Your task to perform on an android device: Search for duracell triple a on bestbuy, select the first entry, and add it to the cart. Image 0: 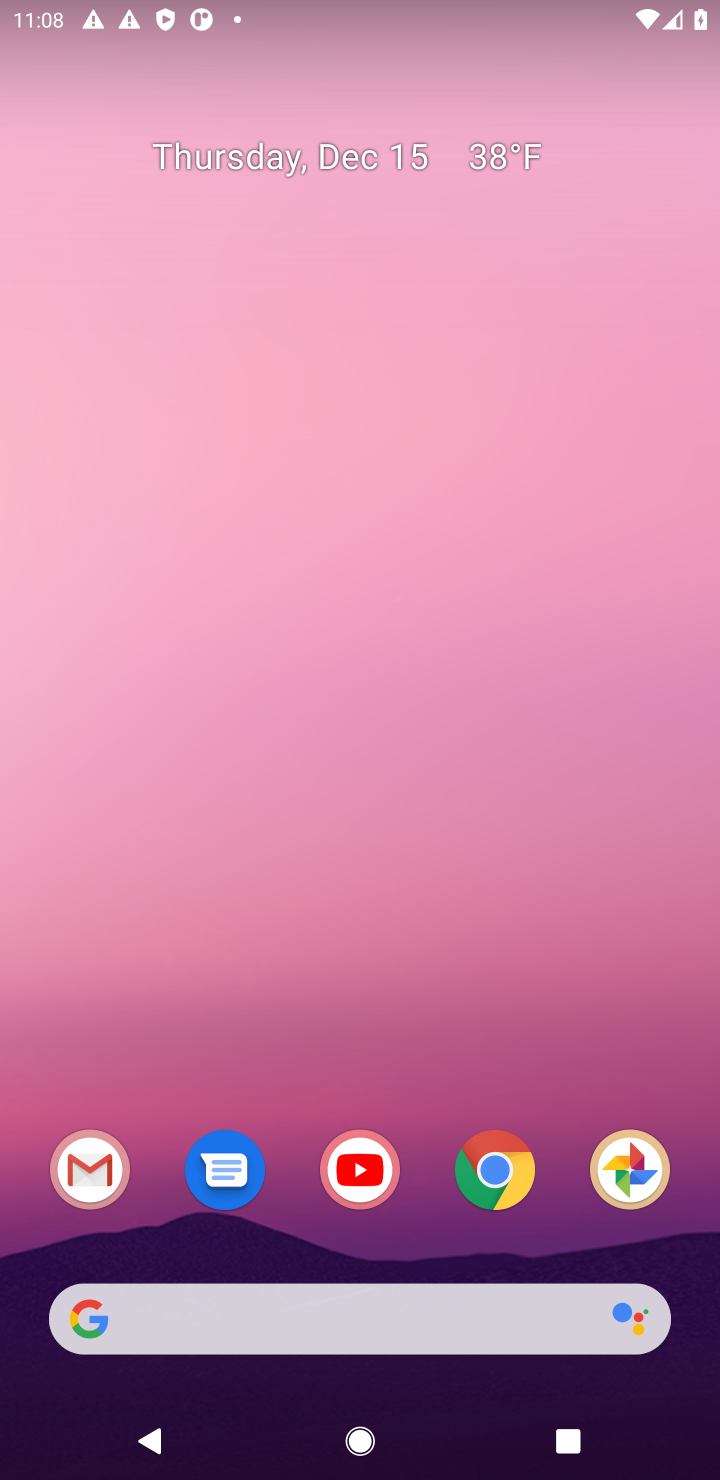
Step 0: click (501, 1177)
Your task to perform on an android device: Search for duracell triple a on bestbuy, select the first entry, and add it to the cart. Image 1: 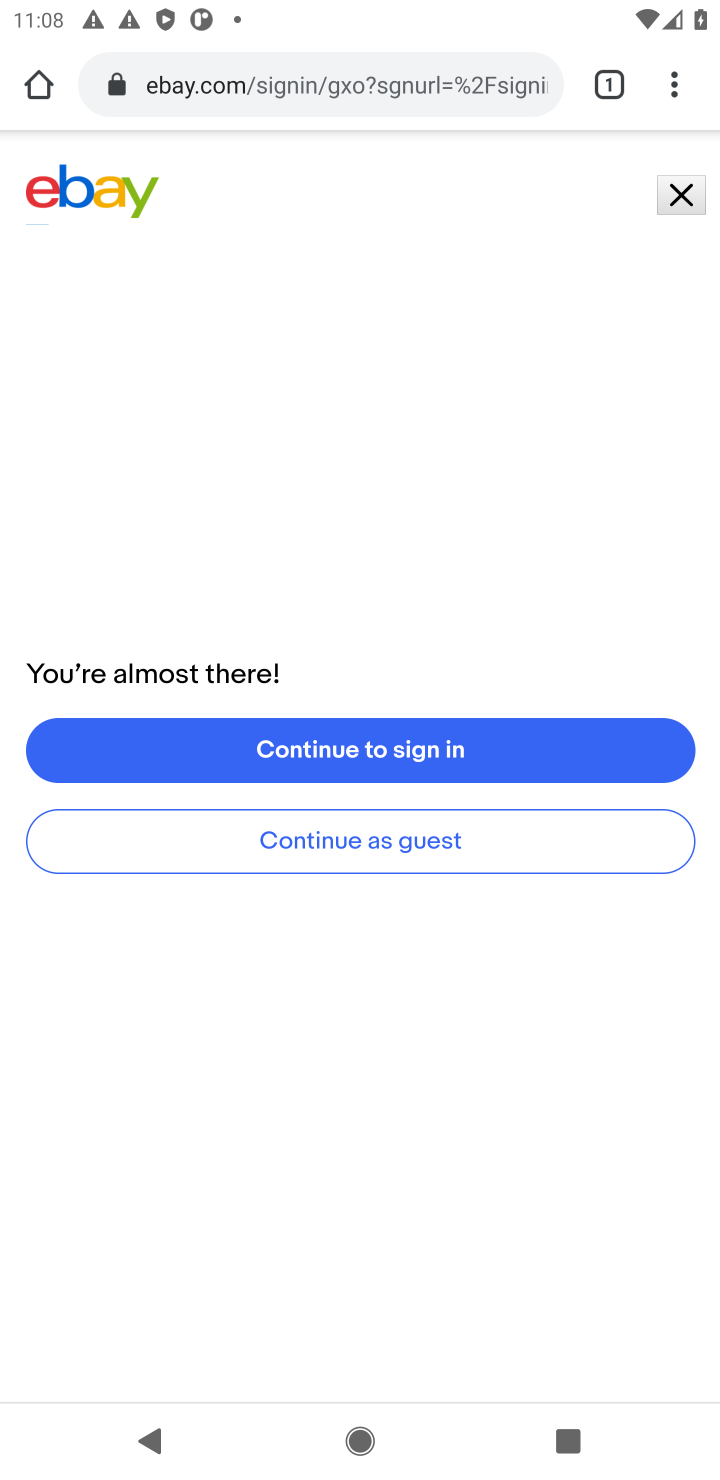
Step 1: click (257, 89)
Your task to perform on an android device: Search for duracell triple a on bestbuy, select the first entry, and add it to the cart. Image 2: 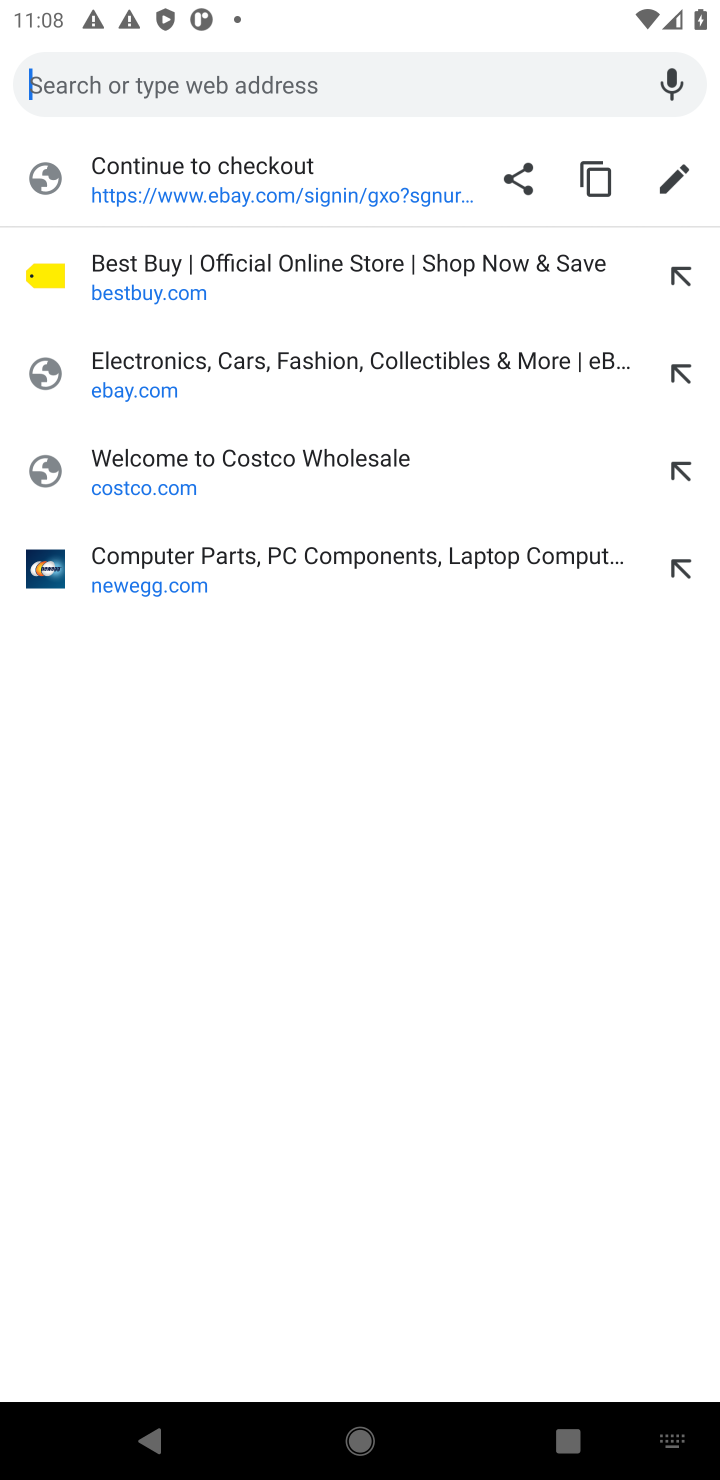
Step 2: click (125, 294)
Your task to perform on an android device: Search for duracell triple a on bestbuy, select the first entry, and add it to the cart. Image 3: 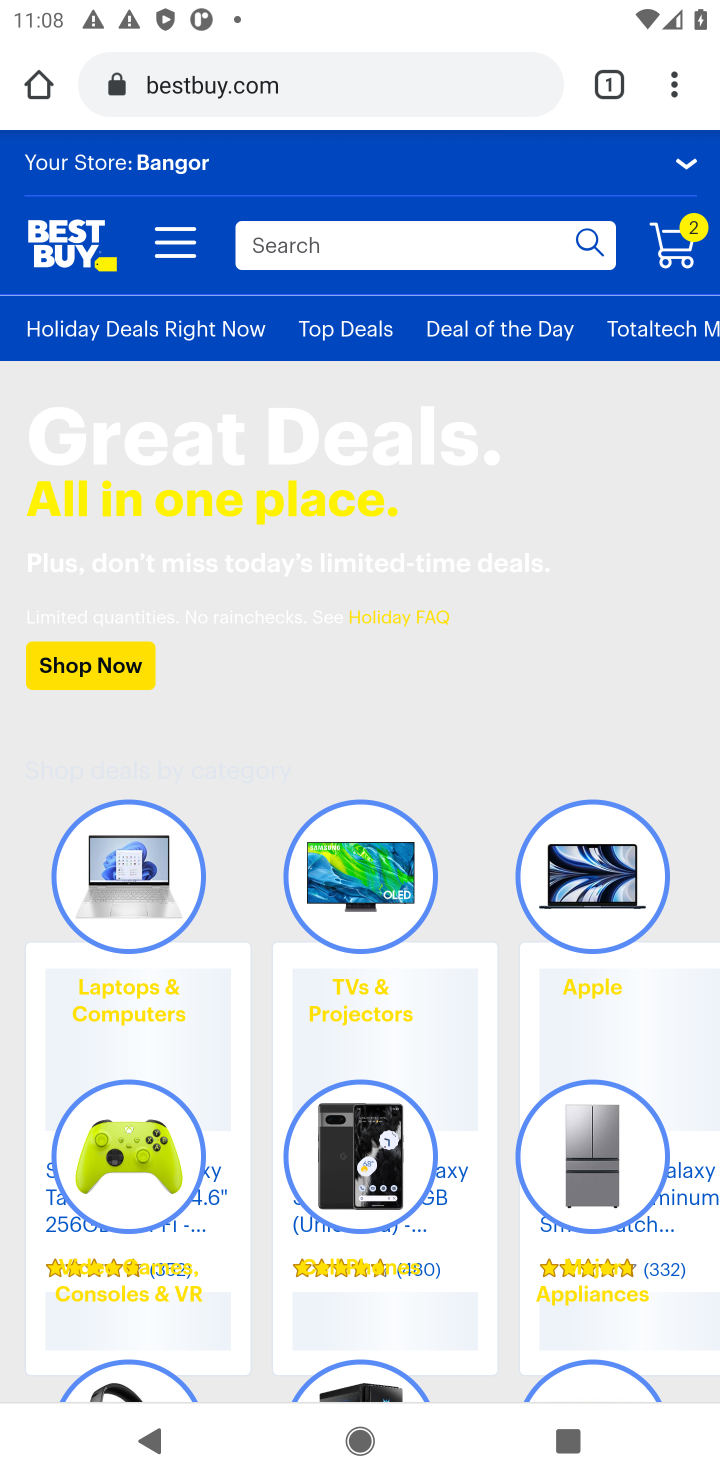
Step 3: click (331, 260)
Your task to perform on an android device: Search for duracell triple a on bestbuy, select the first entry, and add it to the cart. Image 4: 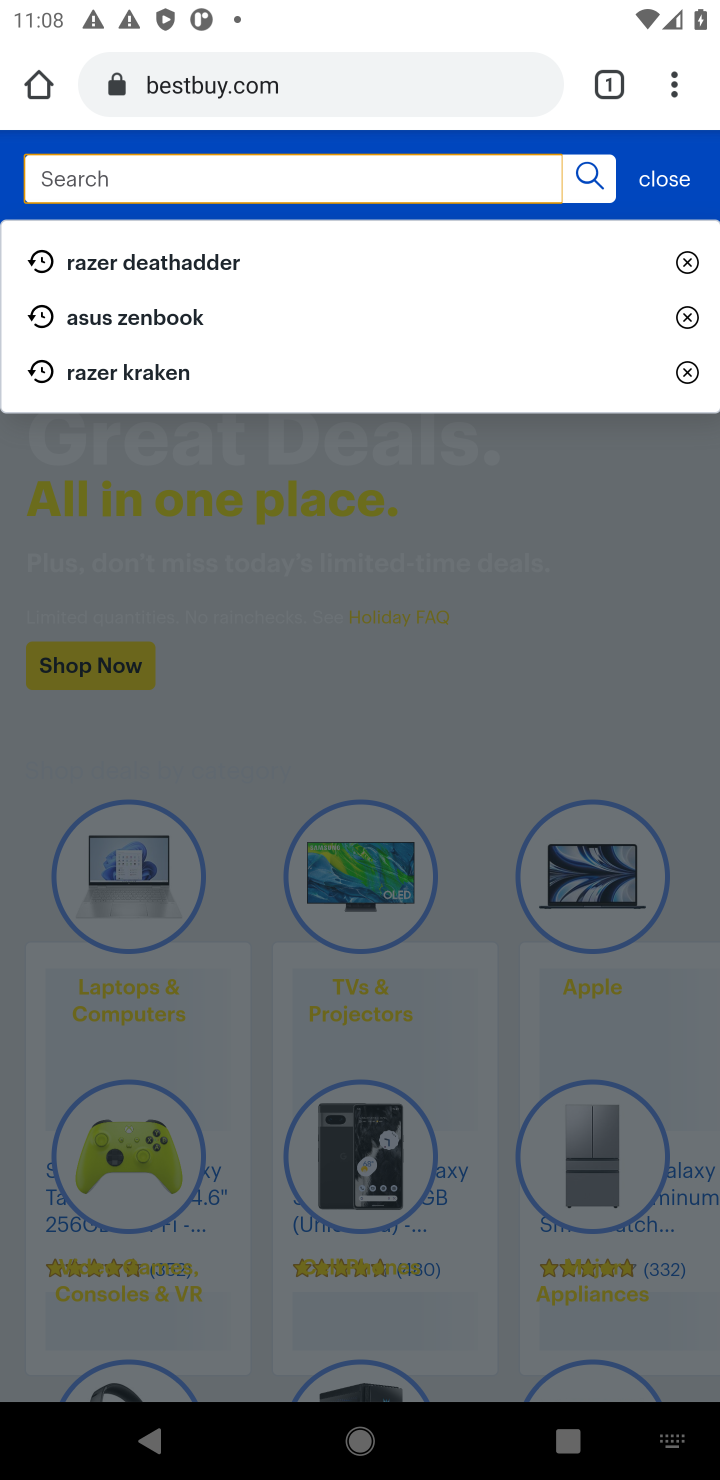
Step 4: type "duracell triple a"
Your task to perform on an android device: Search for duracell triple a on bestbuy, select the first entry, and add it to the cart. Image 5: 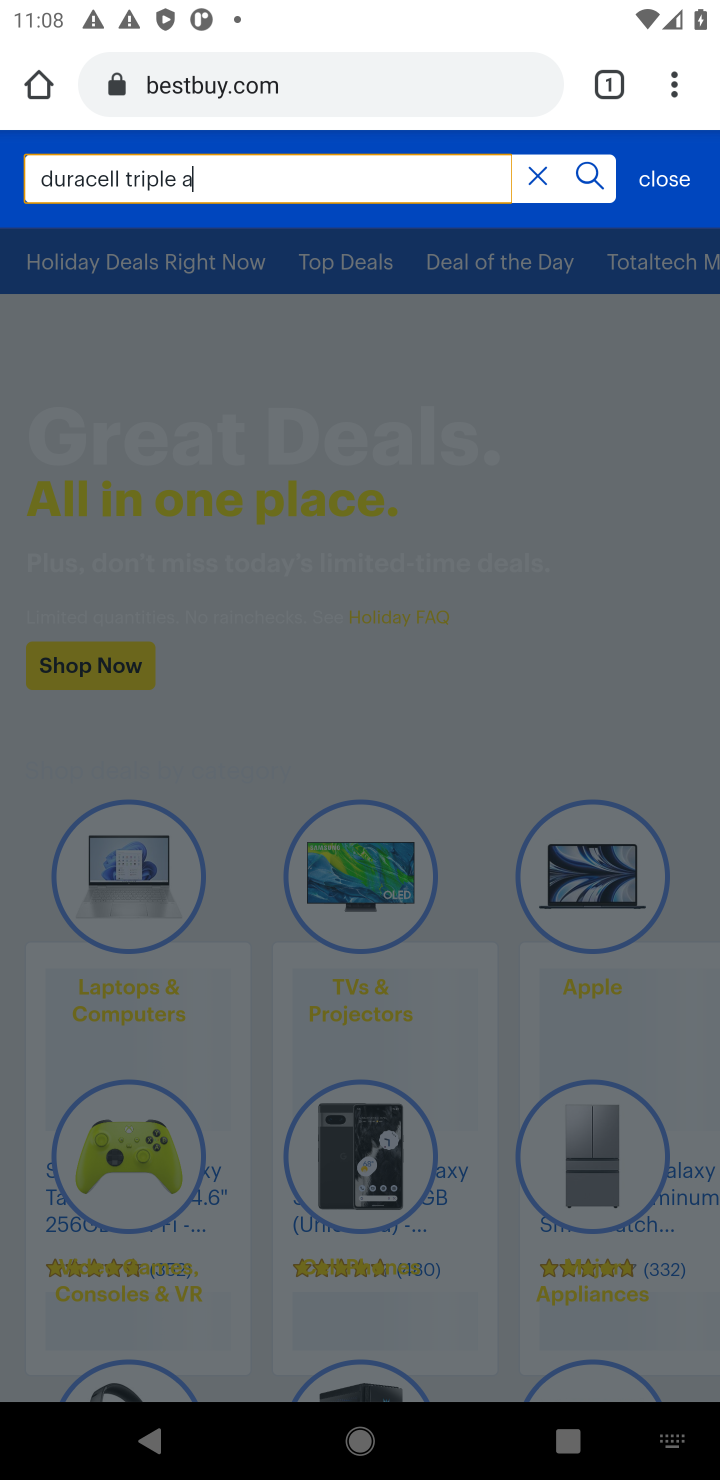
Step 5: click (593, 170)
Your task to perform on an android device: Search for duracell triple a on bestbuy, select the first entry, and add it to the cart. Image 6: 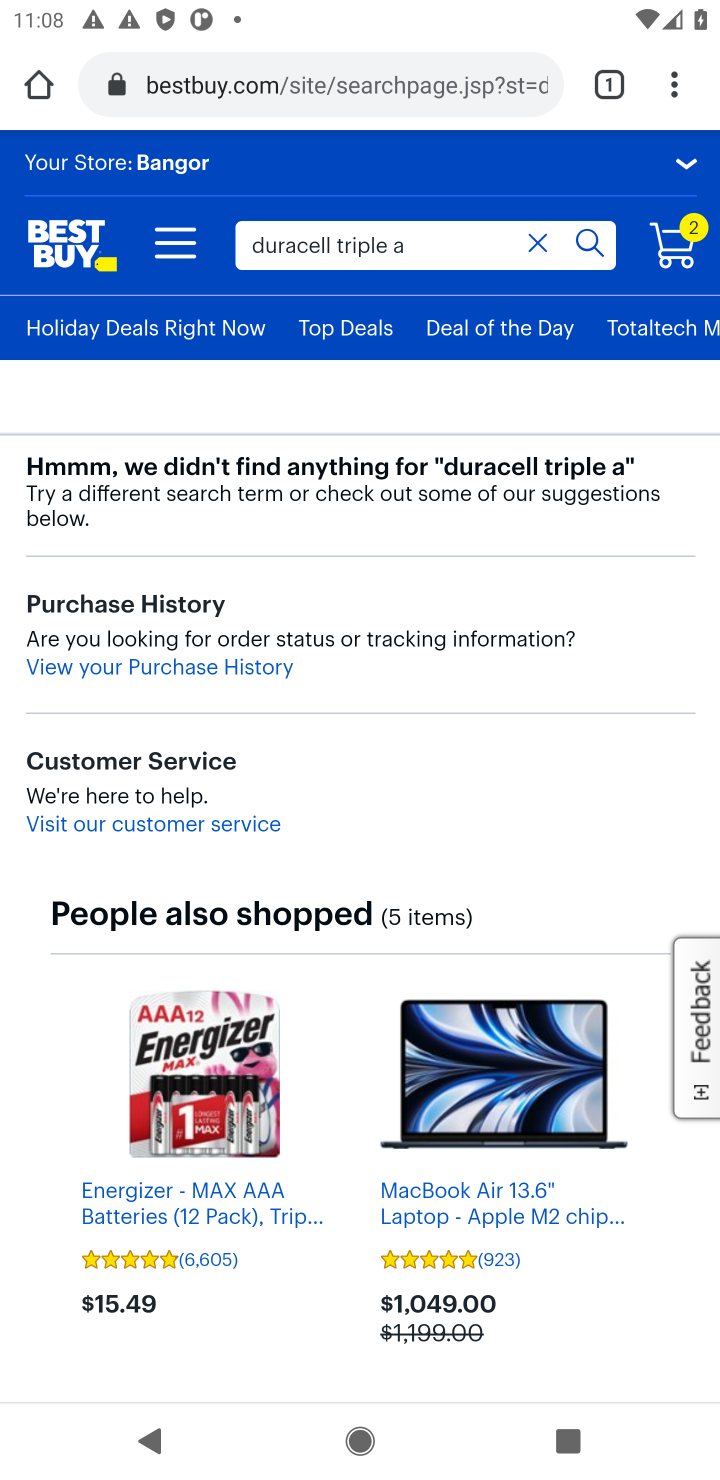
Step 6: task complete